Your task to perform on an android device: change keyboard looks Image 0: 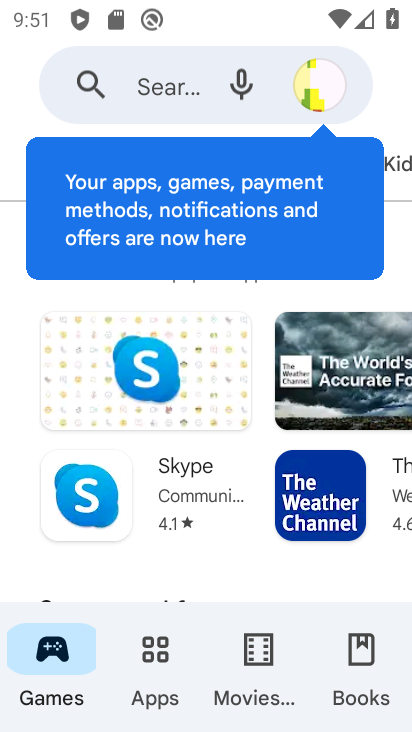
Step 0: press back button
Your task to perform on an android device: change keyboard looks Image 1: 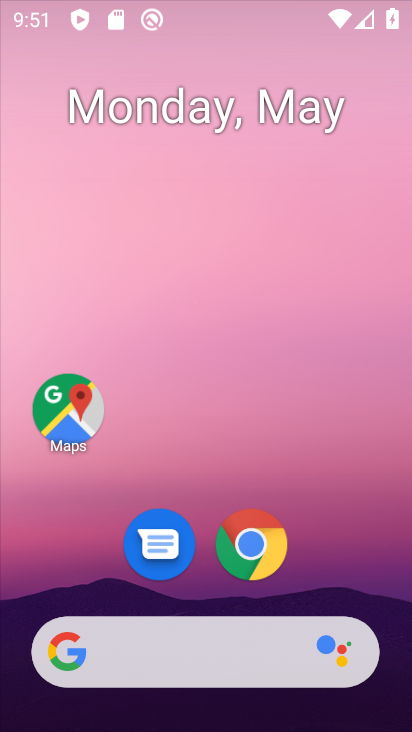
Step 1: drag from (293, 633) to (238, 156)
Your task to perform on an android device: change keyboard looks Image 2: 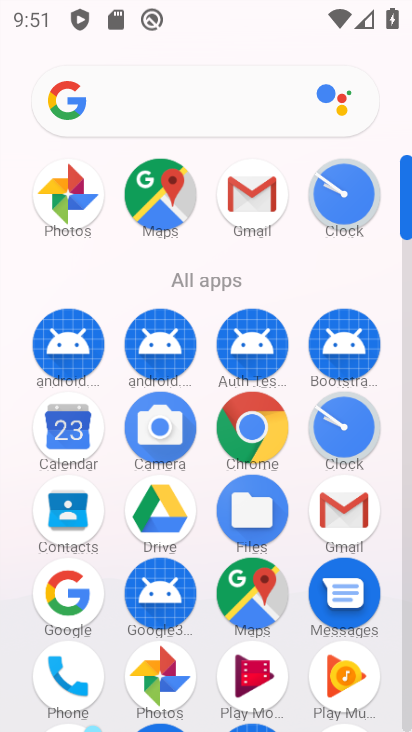
Step 2: drag from (236, 565) to (211, 52)
Your task to perform on an android device: change keyboard looks Image 3: 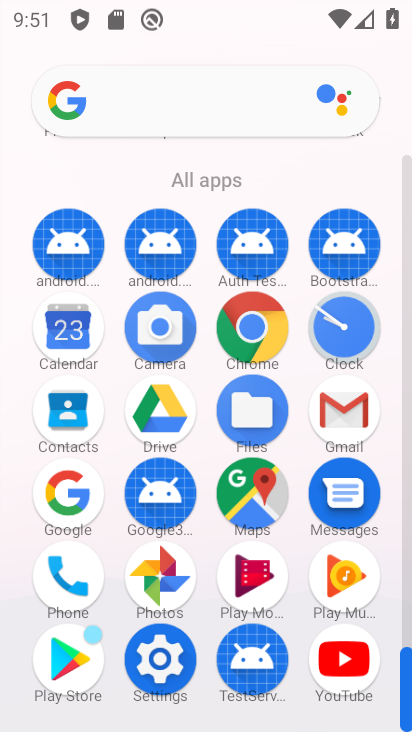
Step 3: drag from (198, 538) to (231, 185)
Your task to perform on an android device: change keyboard looks Image 4: 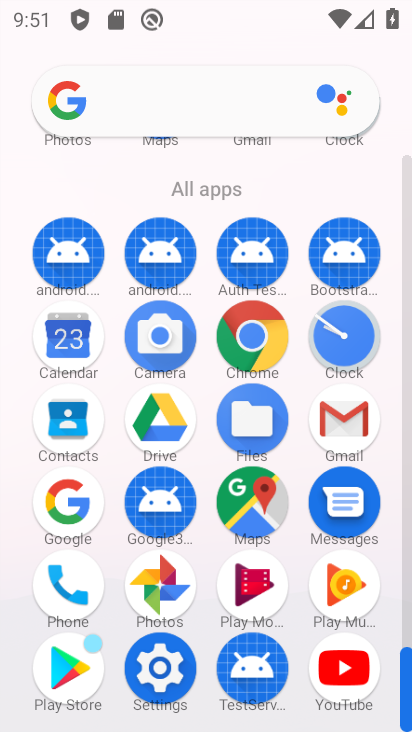
Step 4: drag from (198, 547) to (185, 221)
Your task to perform on an android device: change keyboard looks Image 5: 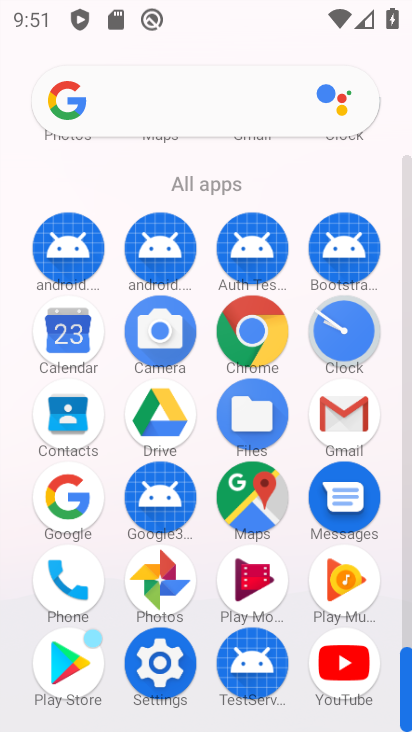
Step 5: drag from (100, 483) to (119, 291)
Your task to perform on an android device: change keyboard looks Image 6: 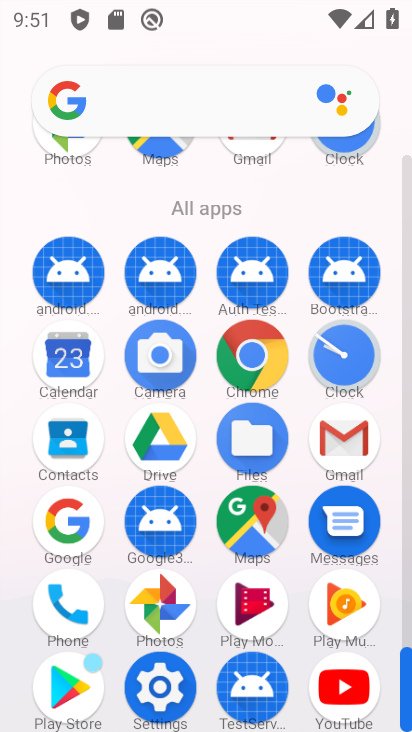
Step 6: click (164, 677)
Your task to perform on an android device: change keyboard looks Image 7: 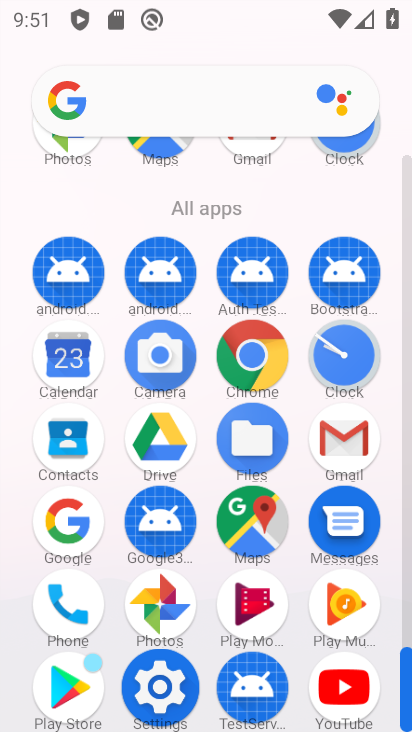
Step 7: click (162, 677)
Your task to perform on an android device: change keyboard looks Image 8: 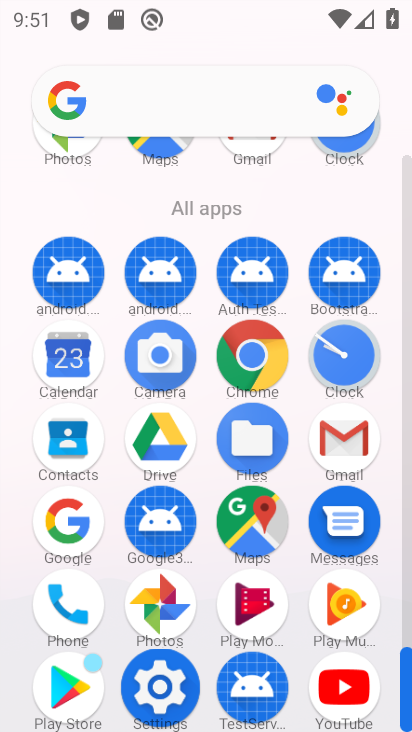
Step 8: click (162, 674)
Your task to perform on an android device: change keyboard looks Image 9: 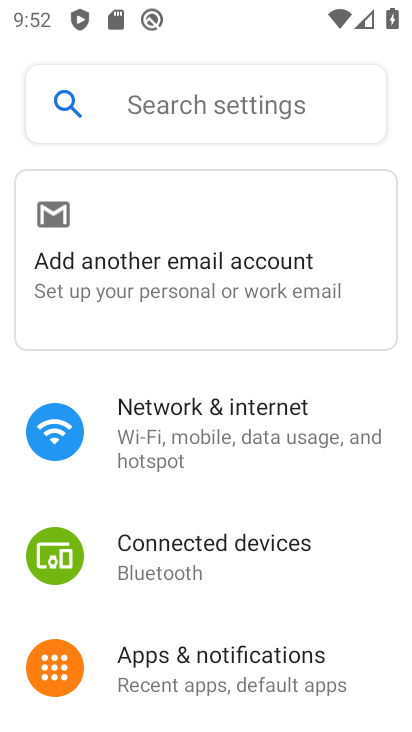
Step 9: click (182, 321)
Your task to perform on an android device: change keyboard looks Image 10: 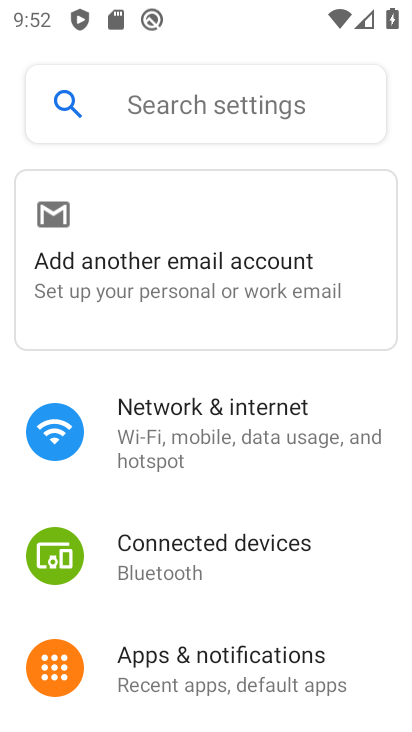
Step 10: drag from (292, 628) to (241, 306)
Your task to perform on an android device: change keyboard looks Image 11: 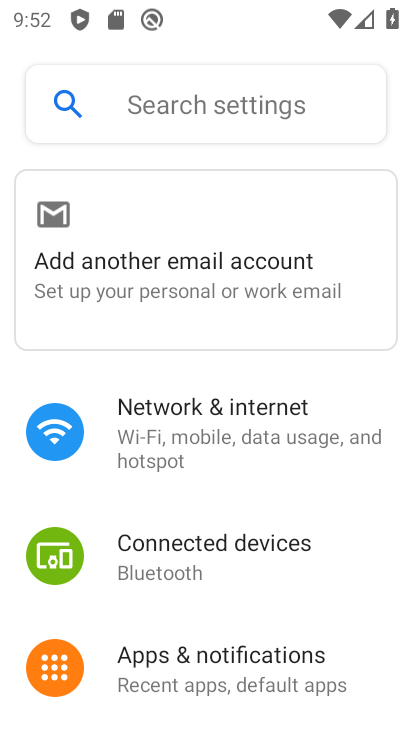
Step 11: drag from (184, 597) to (144, 265)
Your task to perform on an android device: change keyboard looks Image 12: 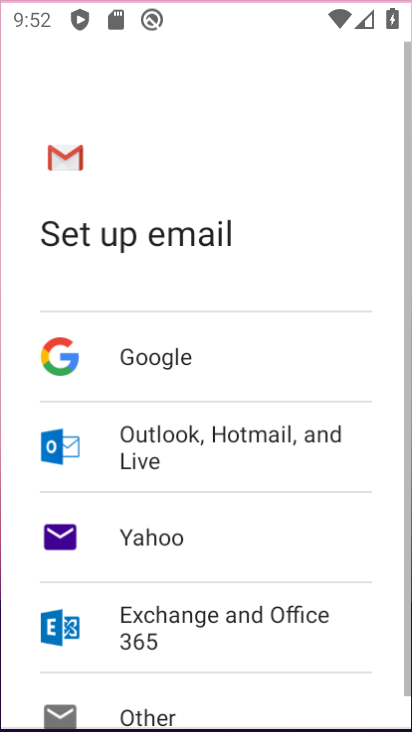
Step 12: drag from (219, 657) to (211, 312)
Your task to perform on an android device: change keyboard looks Image 13: 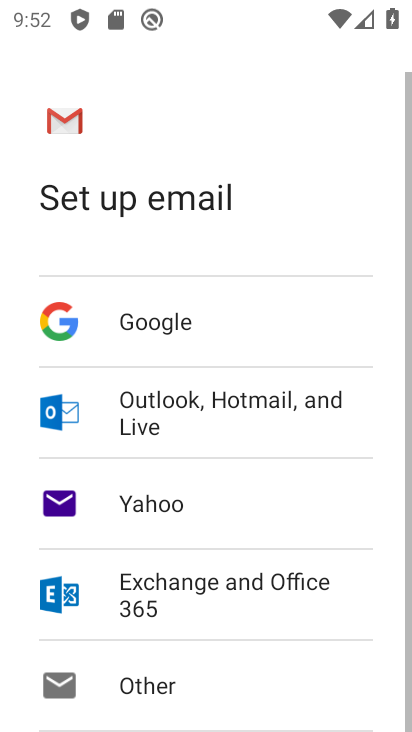
Step 13: press back button
Your task to perform on an android device: change keyboard looks Image 14: 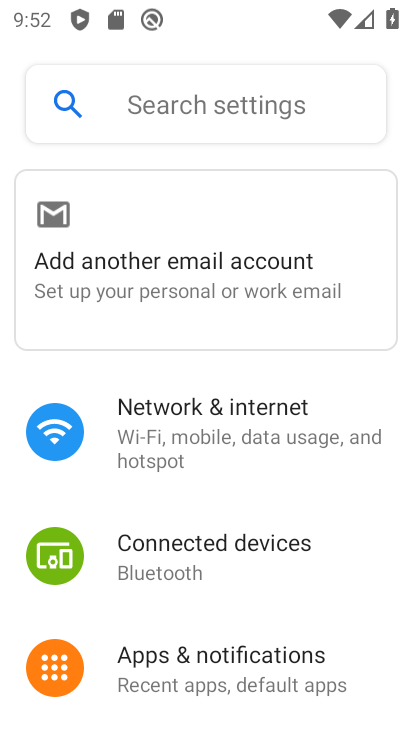
Step 14: drag from (294, 579) to (248, 270)
Your task to perform on an android device: change keyboard looks Image 15: 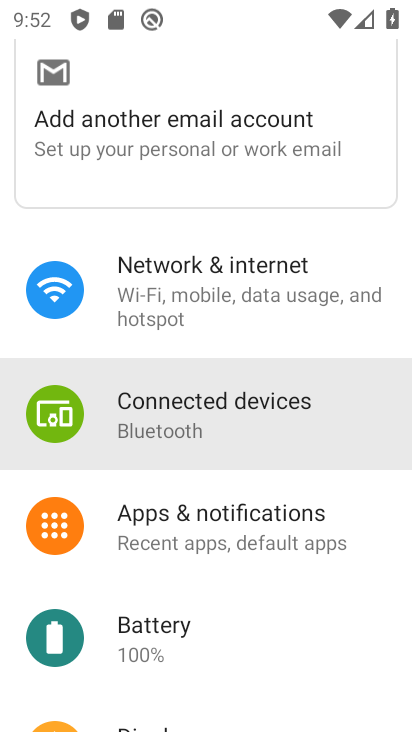
Step 15: drag from (232, 586) to (205, 294)
Your task to perform on an android device: change keyboard looks Image 16: 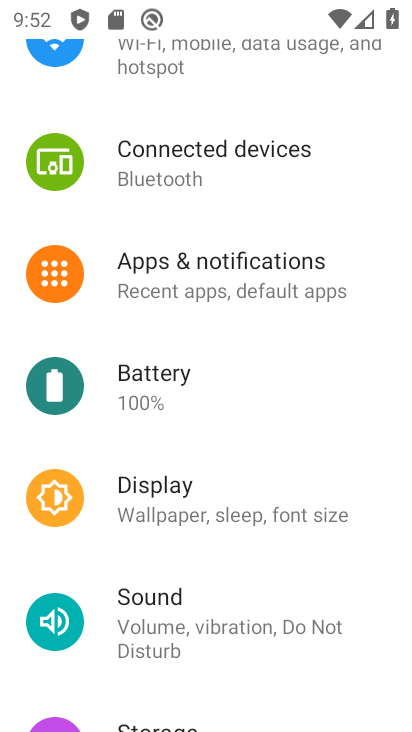
Step 16: drag from (227, 599) to (222, 185)
Your task to perform on an android device: change keyboard looks Image 17: 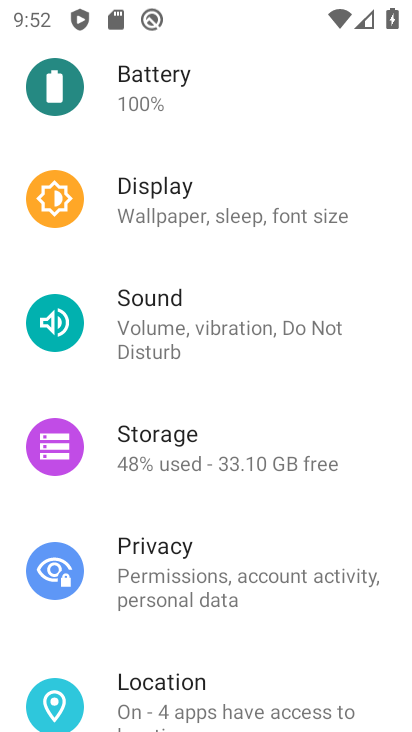
Step 17: drag from (217, 622) to (166, 179)
Your task to perform on an android device: change keyboard looks Image 18: 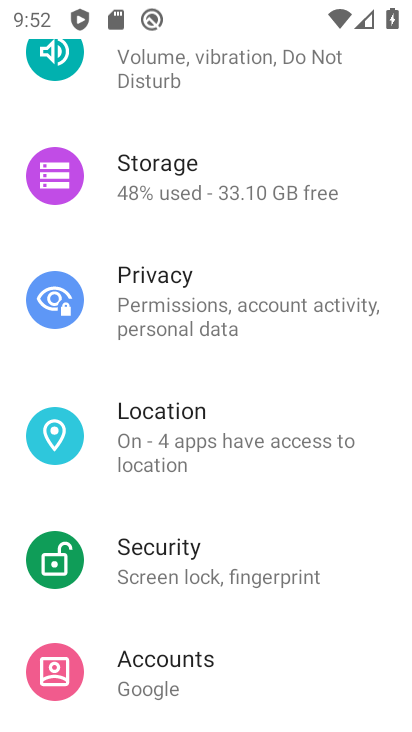
Step 18: drag from (219, 512) to (199, 158)
Your task to perform on an android device: change keyboard looks Image 19: 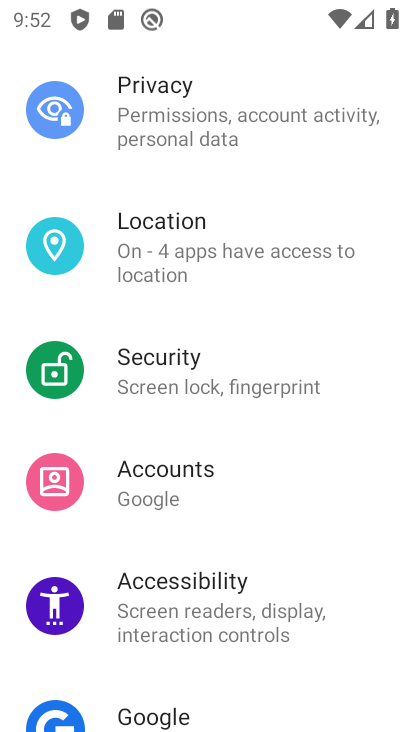
Step 19: drag from (239, 636) to (265, 130)
Your task to perform on an android device: change keyboard looks Image 20: 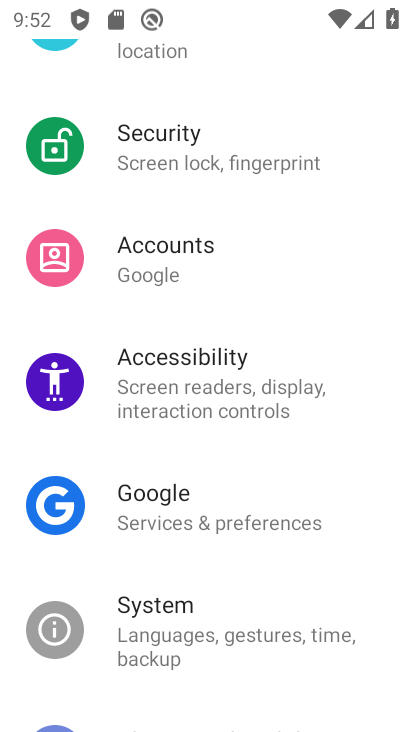
Step 20: drag from (224, 607) to (213, 25)
Your task to perform on an android device: change keyboard looks Image 21: 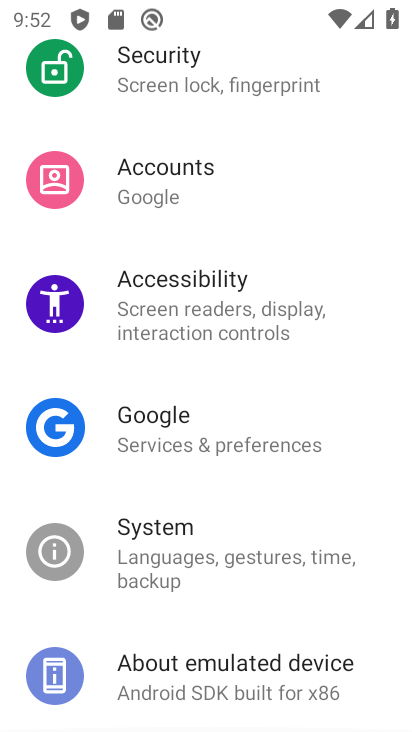
Step 21: drag from (271, 599) to (254, 67)
Your task to perform on an android device: change keyboard looks Image 22: 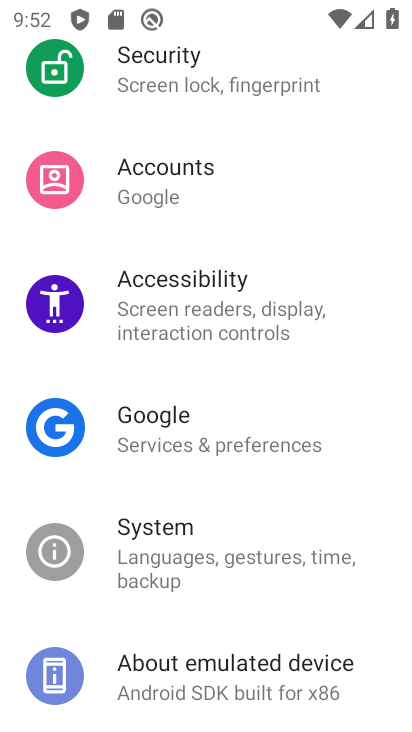
Step 22: drag from (158, 243) to (159, 669)
Your task to perform on an android device: change keyboard looks Image 23: 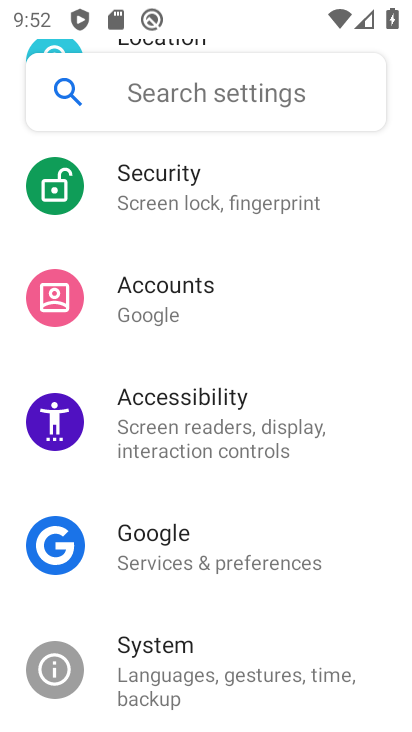
Step 23: click (164, 677)
Your task to perform on an android device: change keyboard looks Image 24: 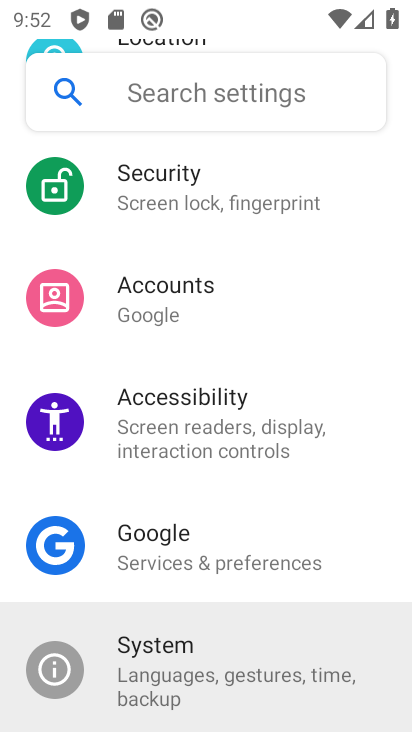
Step 24: click (164, 675)
Your task to perform on an android device: change keyboard looks Image 25: 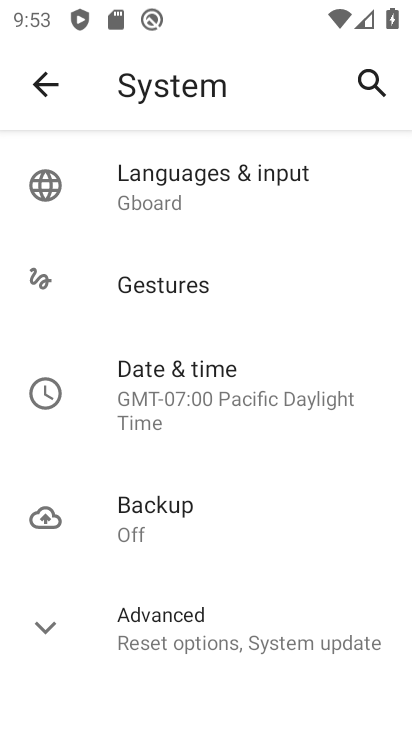
Step 25: click (157, 180)
Your task to perform on an android device: change keyboard looks Image 26: 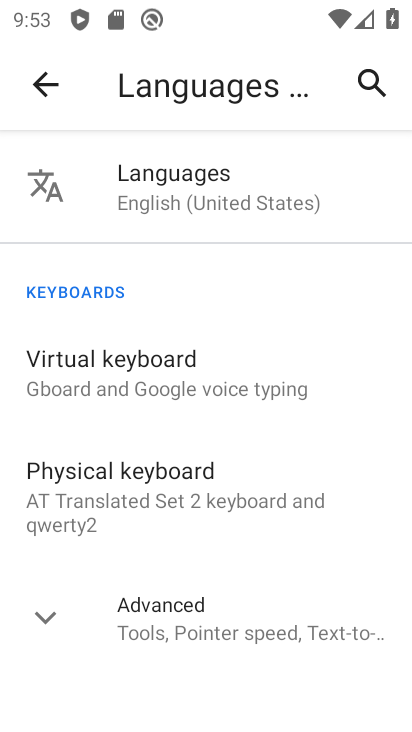
Step 26: click (71, 387)
Your task to perform on an android device: change keyboard looks Image 27: 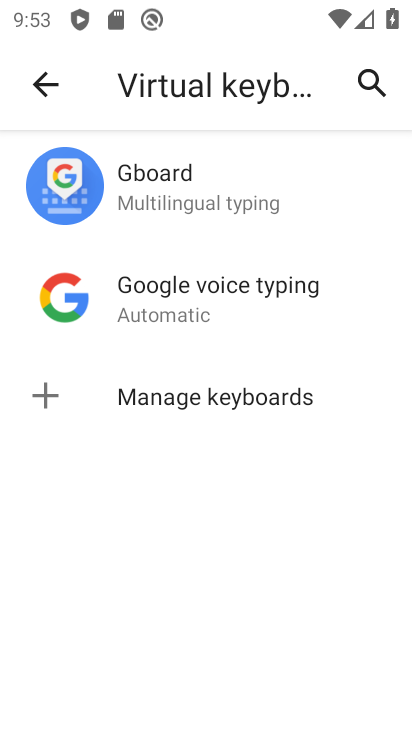
Step 27: click (179, 188)
Your task to perform on an android device: change keyboard looks Image 28: 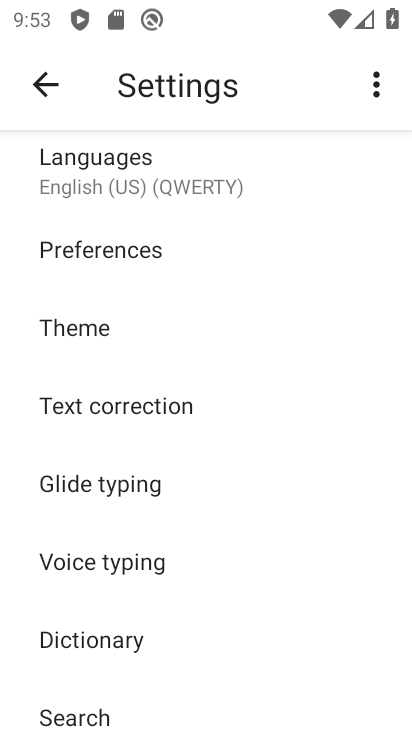
Step 28: click (45, 324)
Your task to perform on an android device: change keyboard looks Image 29: 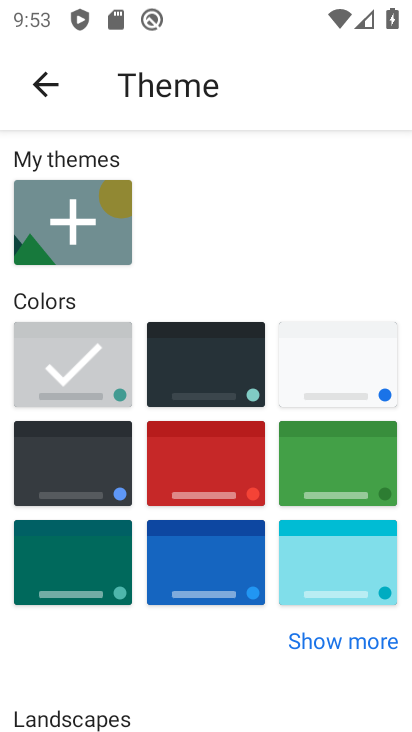
Step 29: click (62, 489)
Your task to perform on an android device: change keyboard looks Image 30: 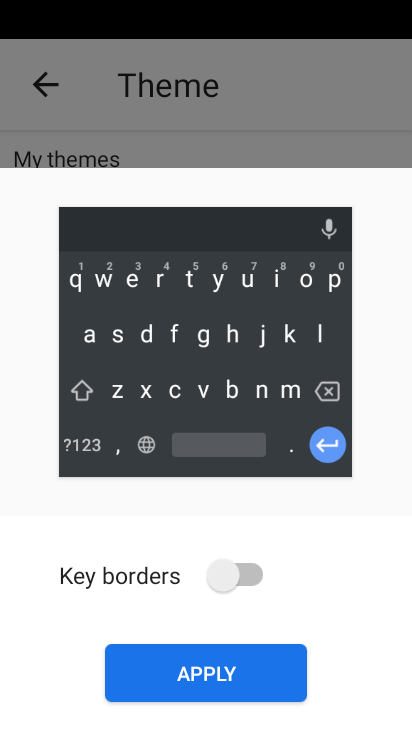
Step 30: click (230, 676)
Your task to perform on an android device: change keyboard looks Image 31: 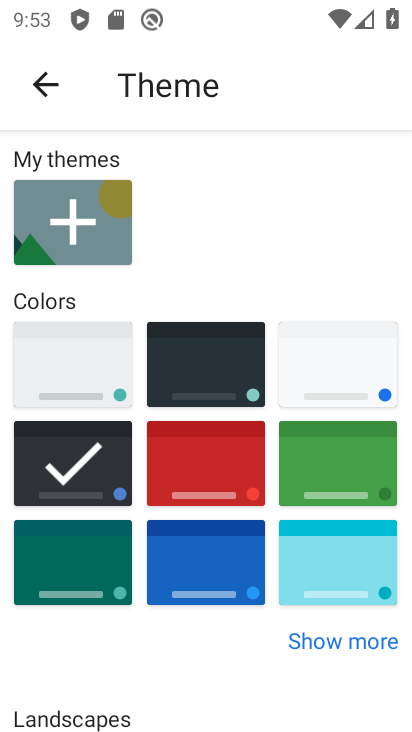
Step 31: task complete